Your task to perform on an android device: Open Youtube and go to the subscriptions tab Image 0: 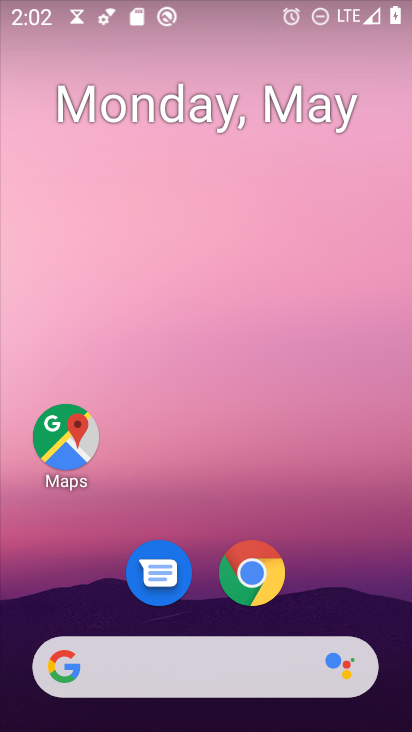
Step 0: drag from (323, 654) to (335, 110)
Your task to perform on an android device: Open Youtube and go to the subscriptions tab Image 1: 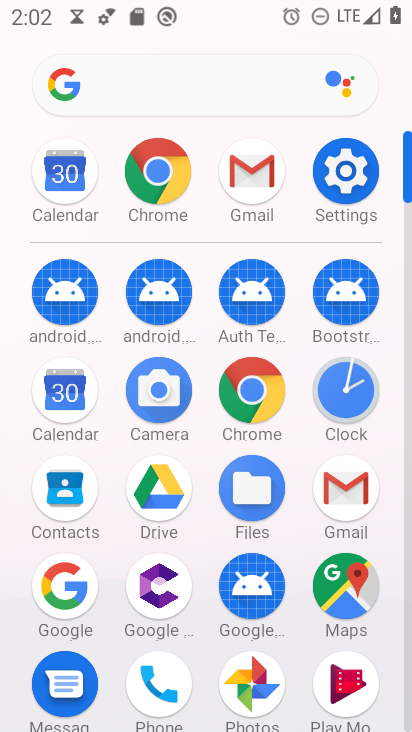
Step 1: drag from (295, 586) to (334, 97)
Your task to perform on an android device: Open Youtube and go to the subscriptions tab Image 2: 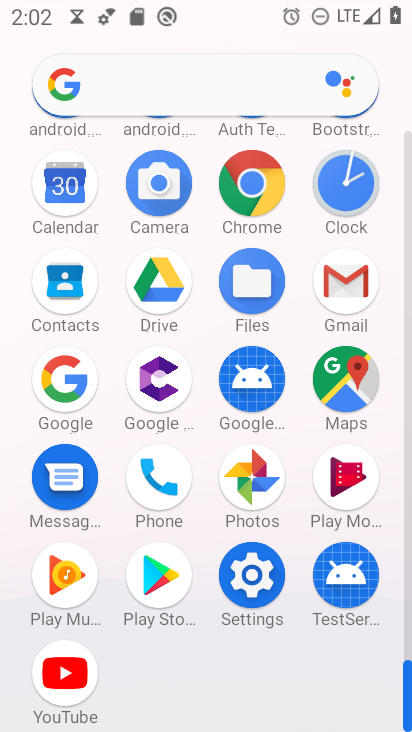
Step 2: click (79, 673)
Your task to perform on an android device: Open Youtube and go to the subscriptions tab Image 3: 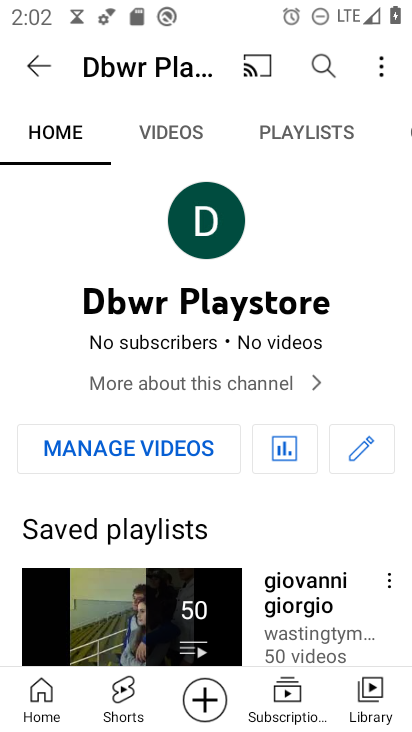
Step 3: click (275, 690)
Your task to perform on an android device: Open Youtube and go to the subscriptions tab Image 4: 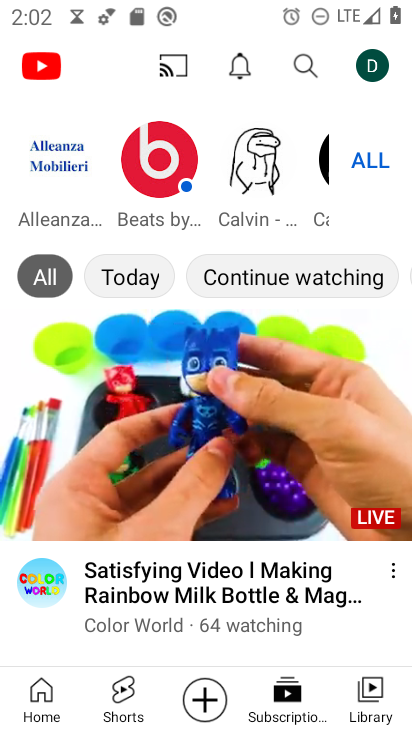
Step 4: task complete